Your task to perform on an android device: Open maps Image 0: 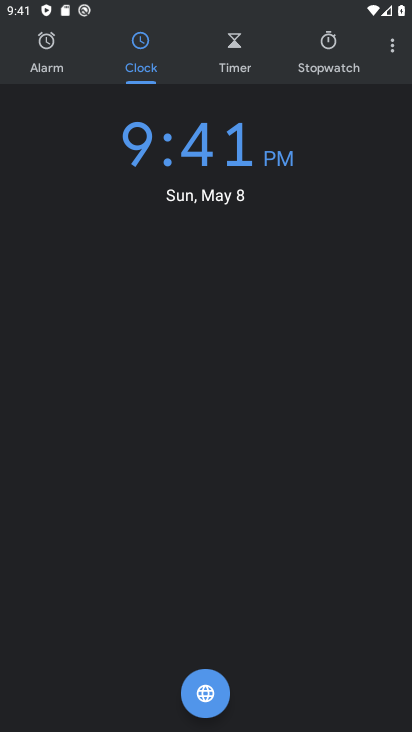
Step 0: press home button
Your task to perform on an android device: Open maps Image 1: 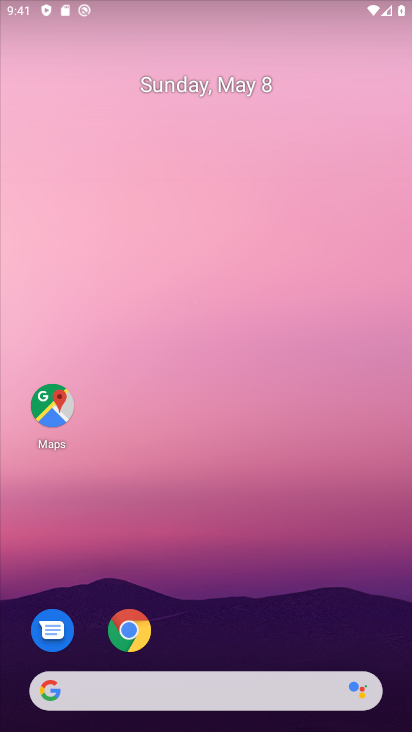
Step 1: drag from (229, 729) to (208, 299)
Your task to perform on an android device: Open maps Image 2: 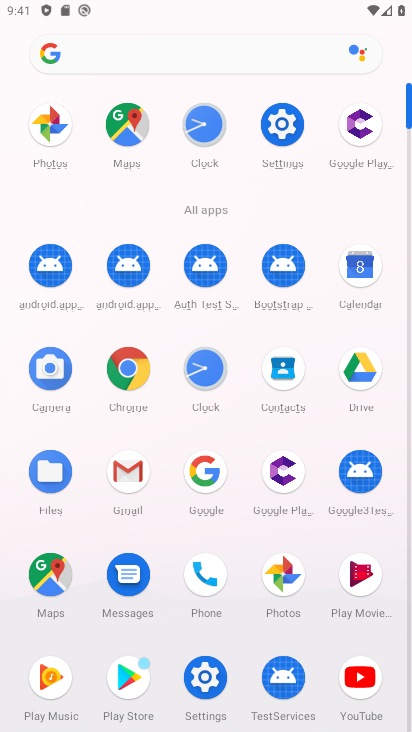
Step 2: click (46, 577)
Your task to perform on an android device: Open maps Image 3: 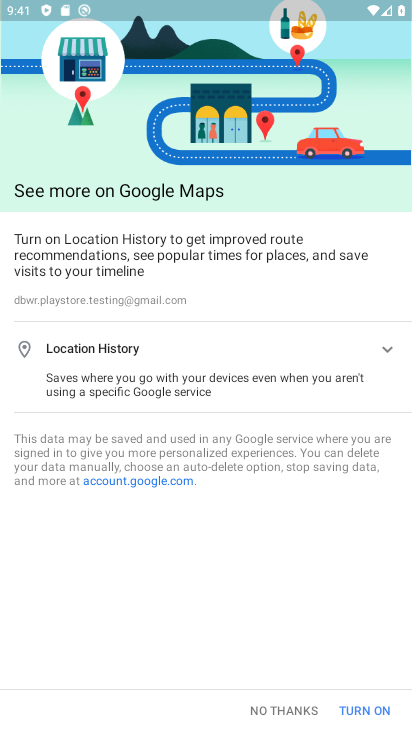
Step 3: task complete